Your task to perform on an android device: Open my contact list Image 0: 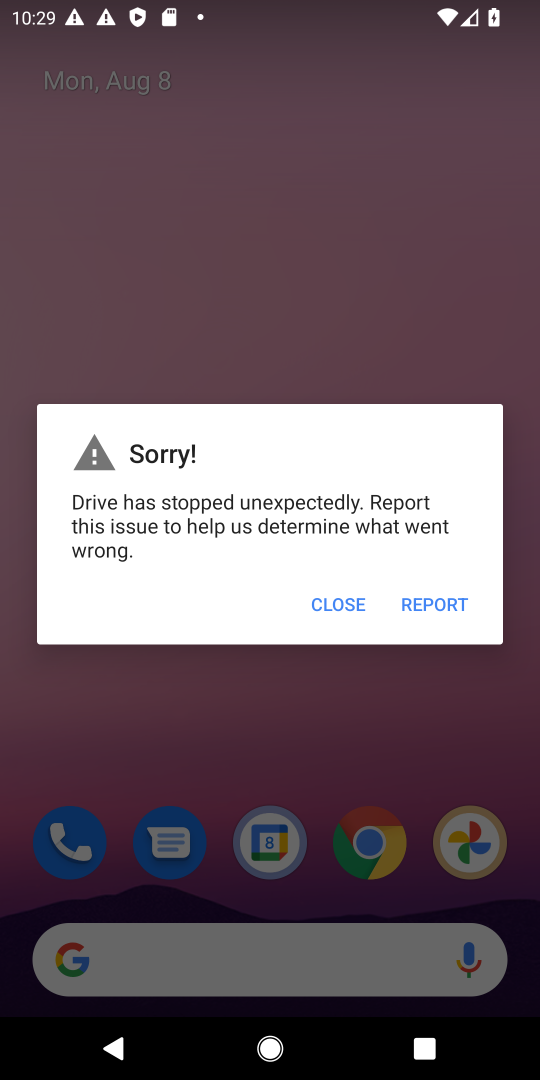
Step 0: click (323, 602)
Your task to perform on an android device: Open my contact list Image 1: 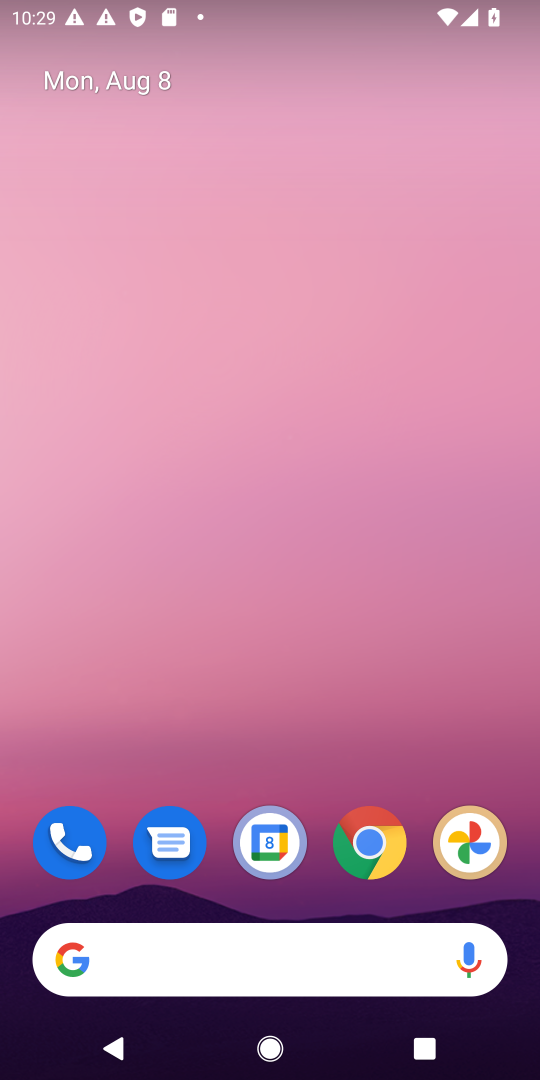
Step 1: click (62, 857)
Your task to perform on an android device: Open my contact list Image 2: 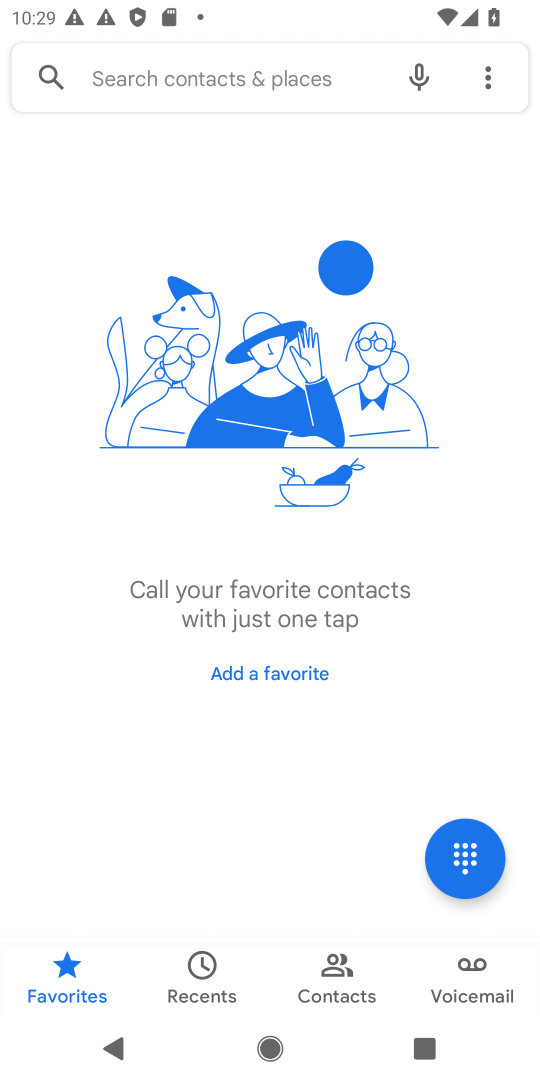
Step 2: click (338, 981)
Your task to perform on an android device: Open my contact list Image 3: 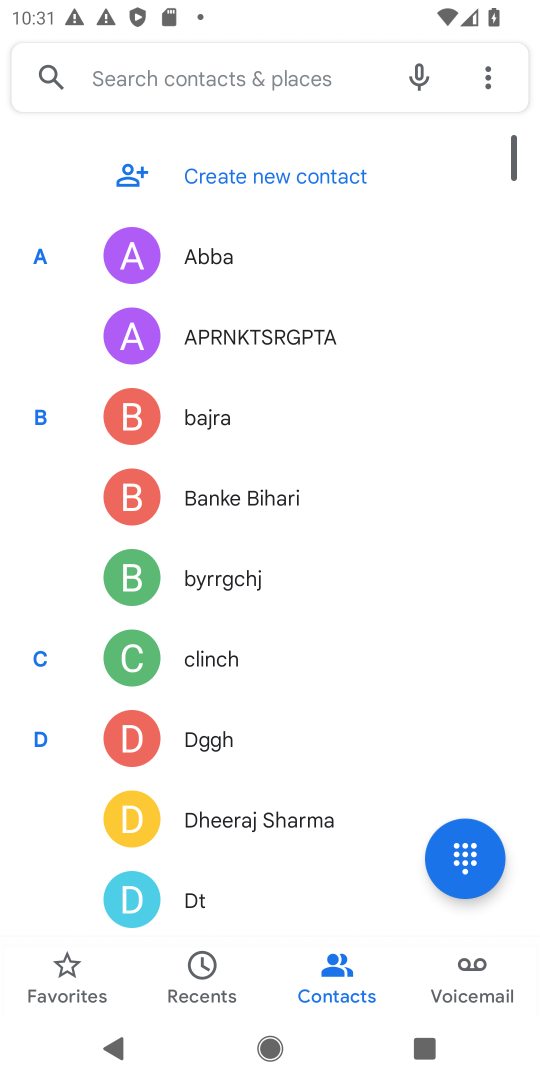
Step 3: task complete